Your task to perform on an android device: delete browsing data in the chrome app Image 0: 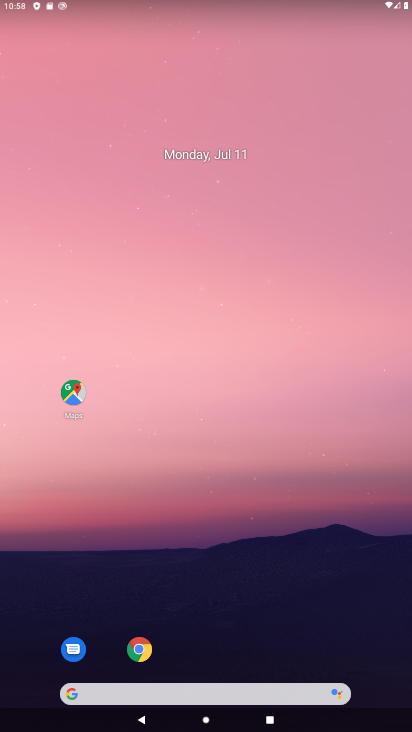
Step 0: click (140, 650)
Your task to perform on an android device: delete browsing data in the chrome app Image 1: 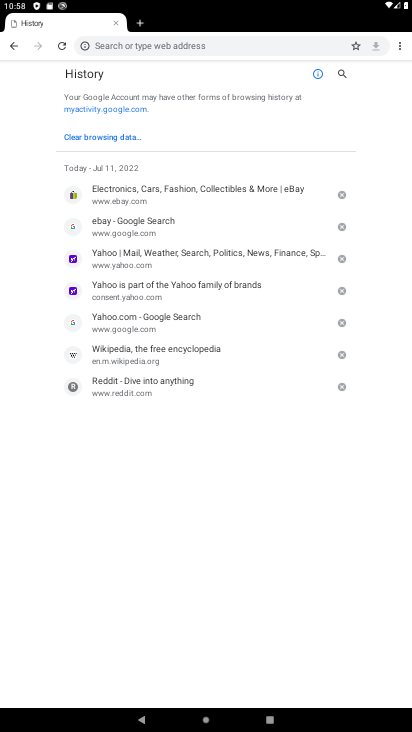
Step 1: click (401, 46)
Your task to perform on an android device: delete browsing data in the chrome app Image 2: 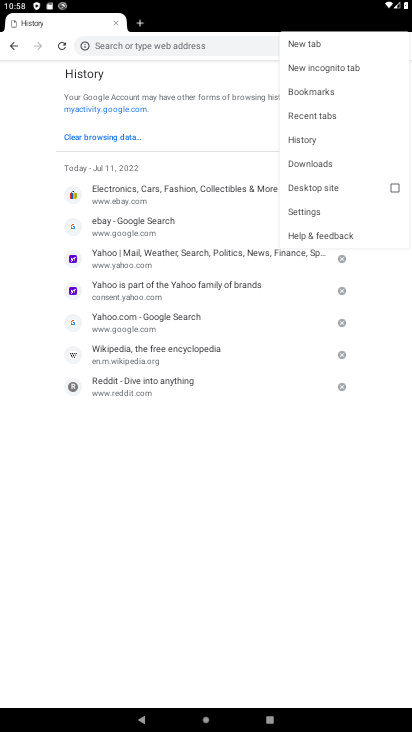
Step 2: click (310, 212)
Your task to perform on an android device: delete browsing data in the chrome app Image 3: 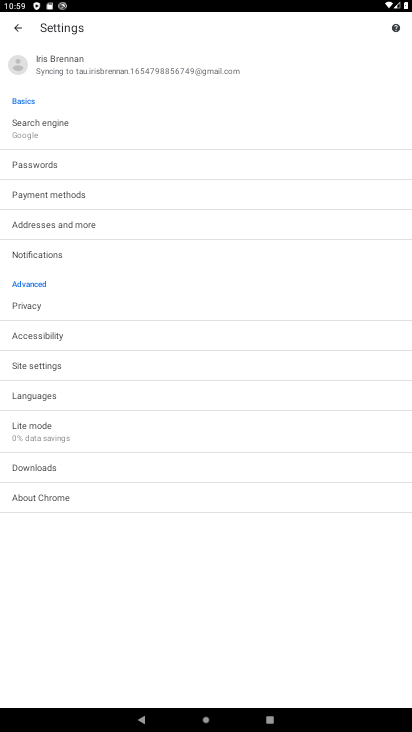
Step 3: click (33, 310)
Your task to perform on an android device: delete browsing data in the chrome app Image 4: 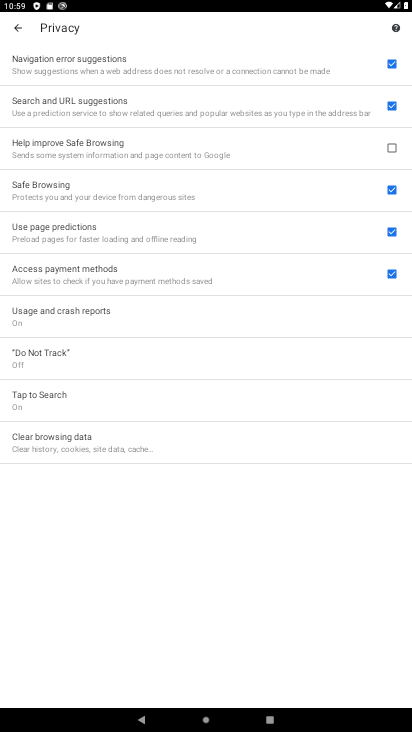
Step 4: click (59, 439)
Your task to perform on an android device: delete browsing data in the chrome app Image 5: 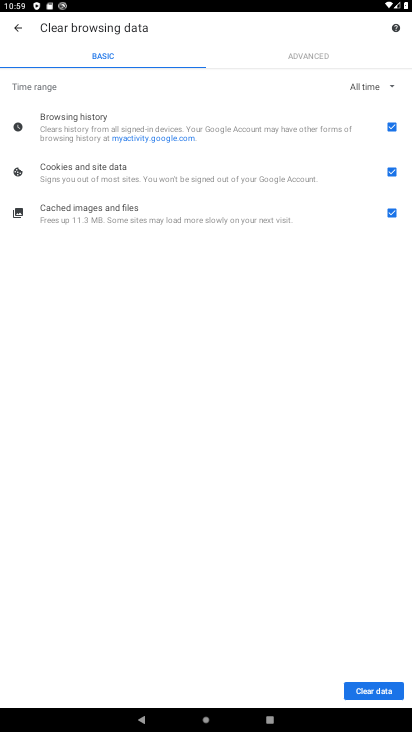
Step 5: click (374, 689)
Your task to perform on an android device: delete browsing data in the chrome app Image 6: 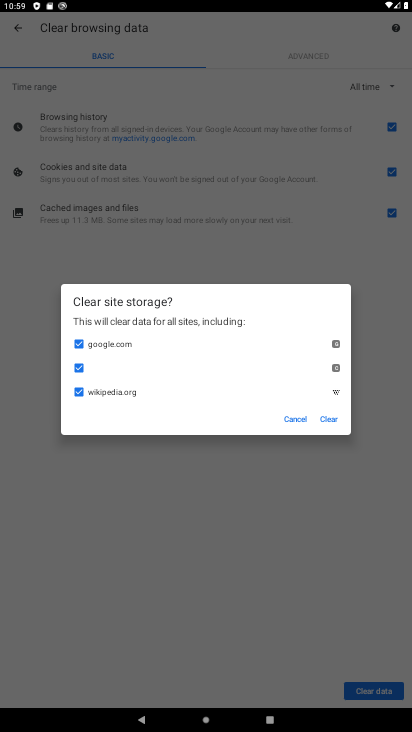
Step 6: click (332, 418)
Your task to perform on an android device: delete browsing data in the chrome app Image 7: 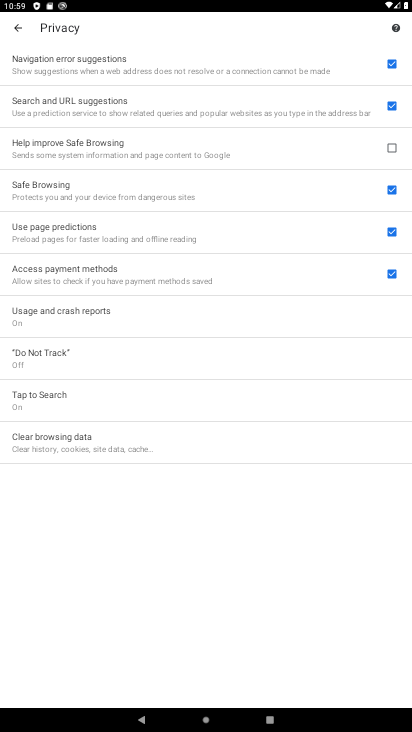
Step 7: task complete